Your task to perform on an android device: Open display settings Image 0: 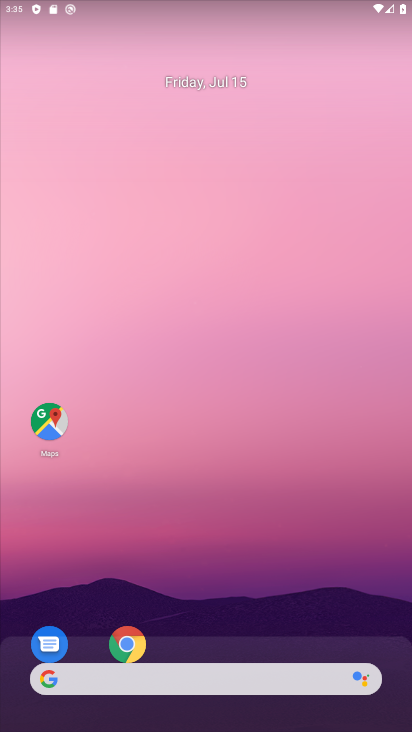
Step 0: drag from (286, 616) to (199, 4)
Your task to perform on an android device: Open display settings Image 1: 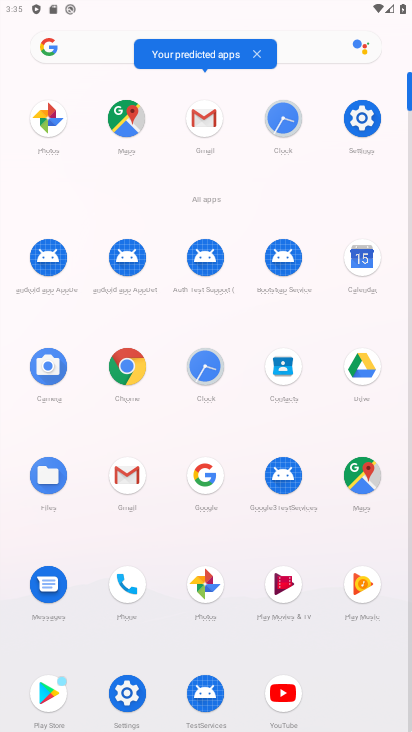
Step 1: click (363, 124)
Your task to perform on an android device: Open display settings Image 2: 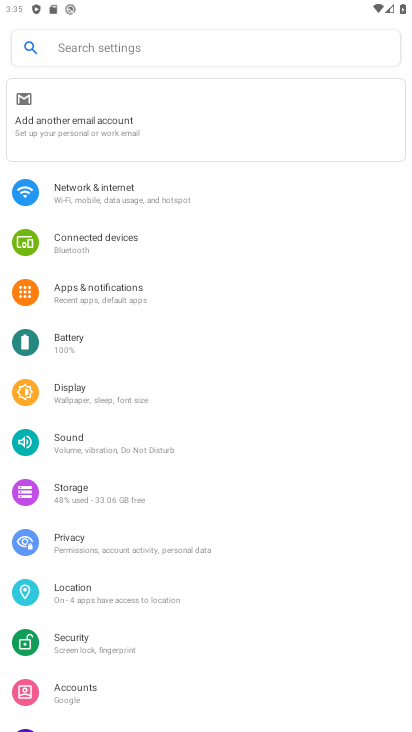
Step 2: click (128, 401)
Your task to perform on an android device: Open display settings Image 3: 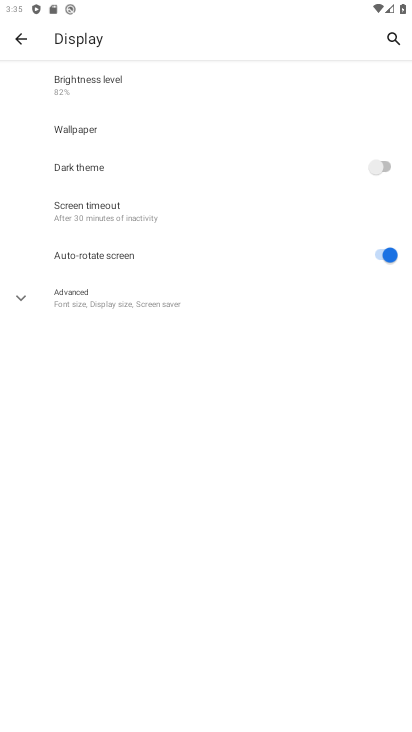
Step 3: task complete